Your task to perform on an android device: Open privacy settings Image 0: 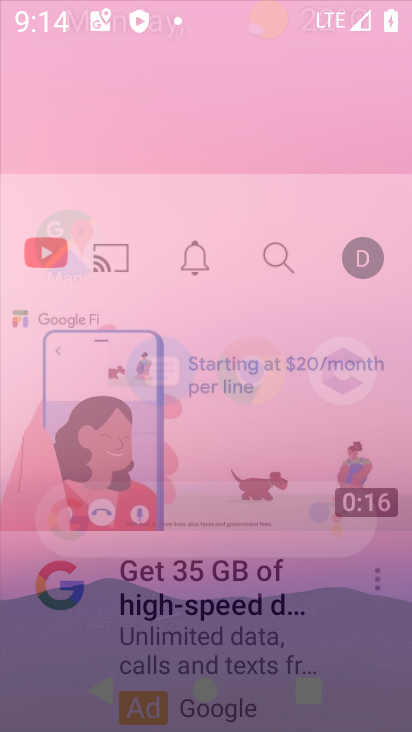
Step 0: press home button
Your task to perform on an android device: Open privacy settings Image 1: 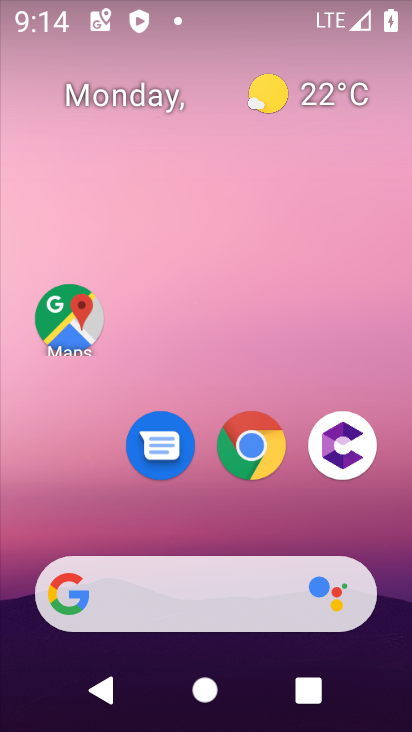
Step 1: drag from (250, 498) to (238, 0)
Your task to perform on an android device: Open privacy settings Image 2: 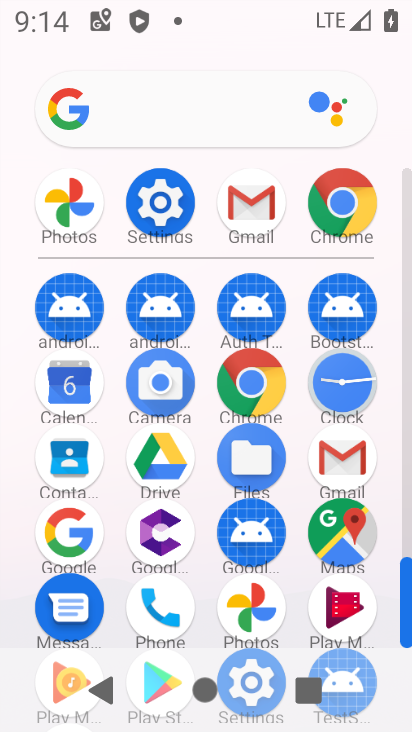
Step 2: click (167, 209)
Your task to perform on an android device: Open privacy settings Image 3: 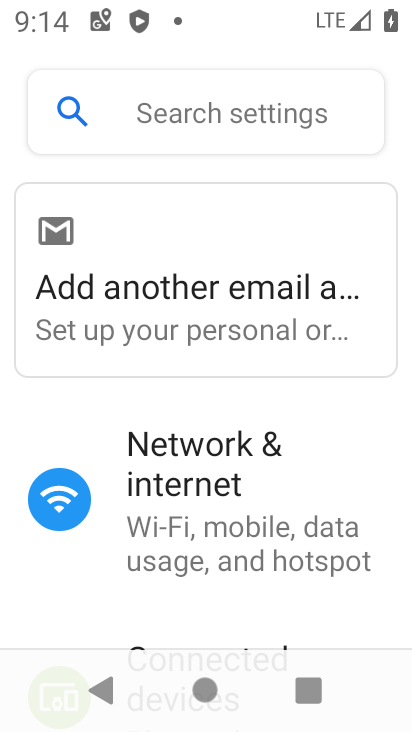
Step 3: drag from (299, 586) to (347, 1)
Your task to perform on an android device: Open privacy settings Image 4: 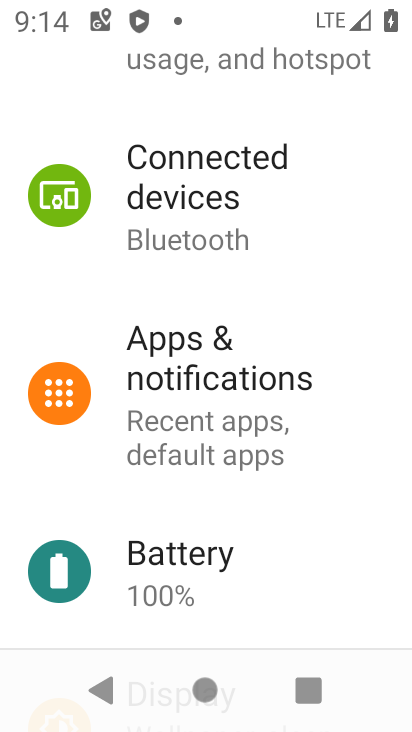
Step 4: drag from (346, 540) to (360, 4)
Your task to perform on an android device: Open privacy settings Image 5: 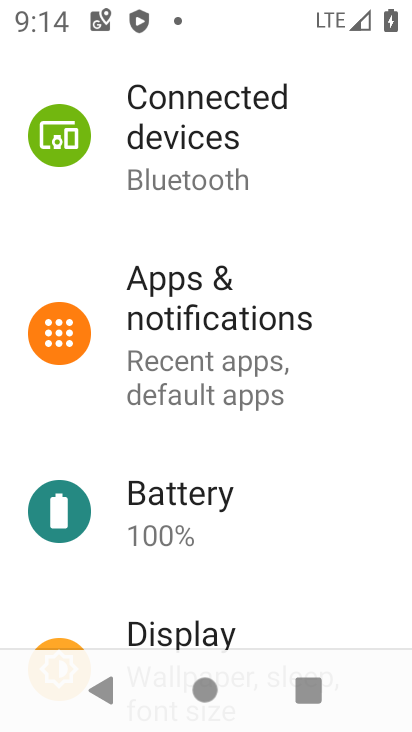
Step 5: drag from (254, 521) to (247, 39)
Your task to perform on an android device: Open privacy settings Image 6: 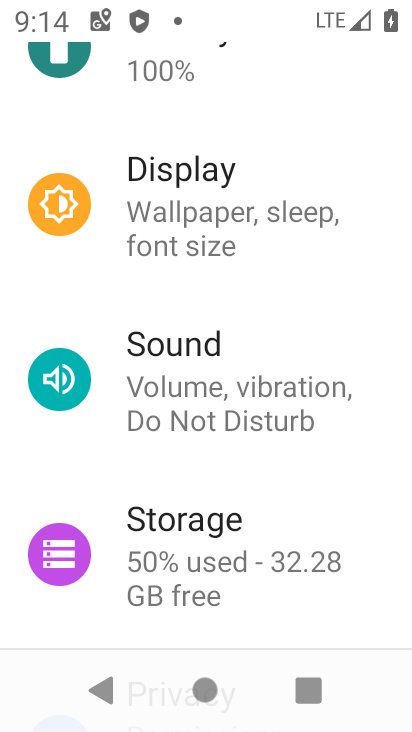
Step 6: drag from (327, 474) to (305, 153)
Your task to perform on an android device: Open privacy settings Image 7: 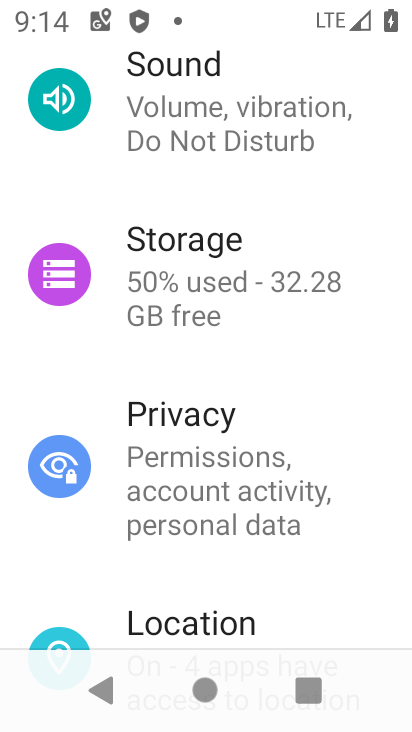
Step 7: click (187, 503)
Your task to perform on an android device: Open privacy settings Image 8: 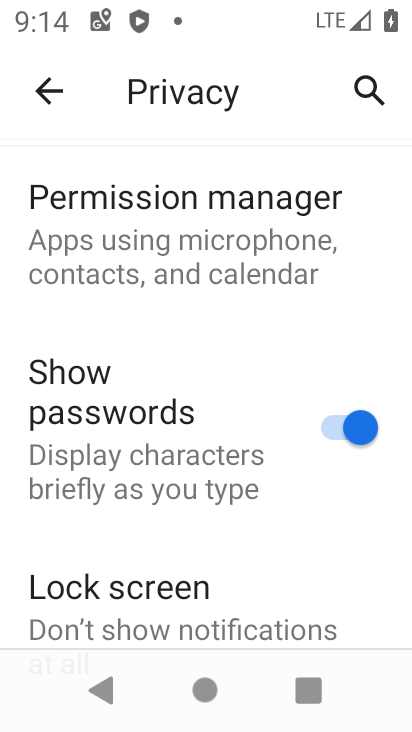
Step 8: task complete